Your task to perform on an android device: Go to Maps Image 0: 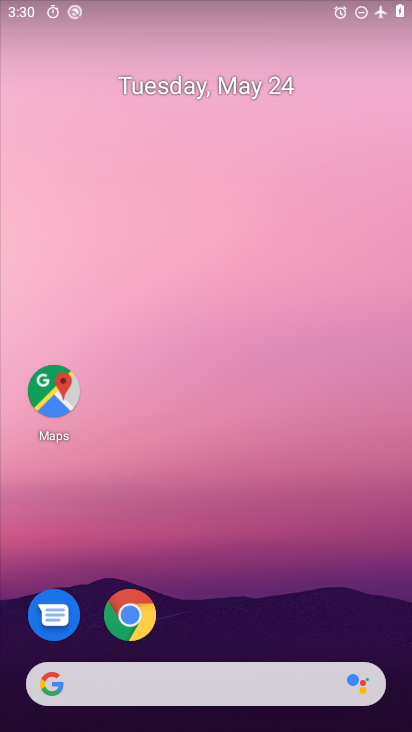
Step 0: click (44, 408)
Your task to perform on an android device: Go to Maps Image 1: 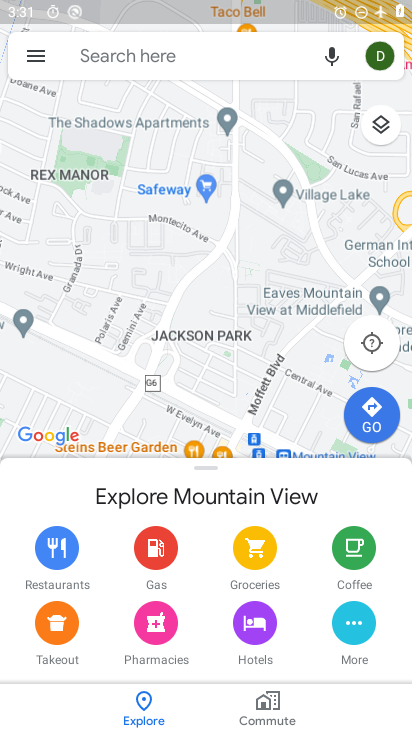
Step 1: task complete